Your task to perform on an android device: turn on priority inbox in the gmail app Image 0: 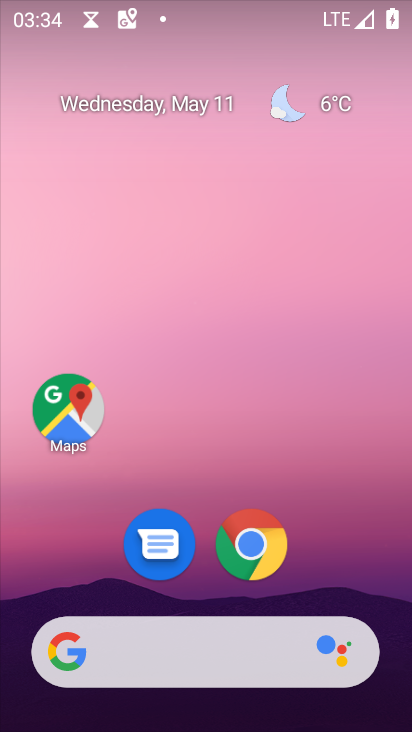
Step 0: drag from (322, 575) to (238, 76)
Your task to perform on an android device: turn on priority inbox in the gmail app Image 1: 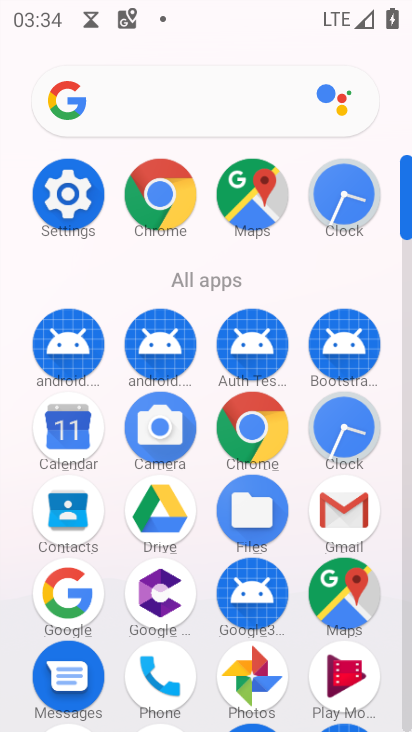
Step 1: click (344, 501)
Your task to perform on an android device: turn on priority inbox in the gmail app Image 2: 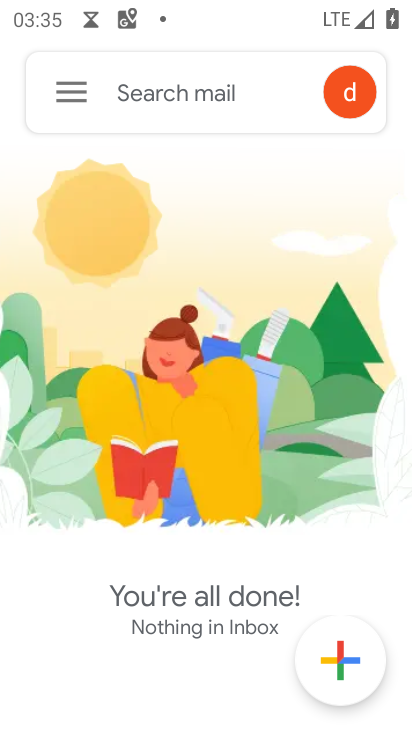
Step 2: click (72, 88)
Your task to perform on an android device: turn on priority inbox in the gmail app Image 3: 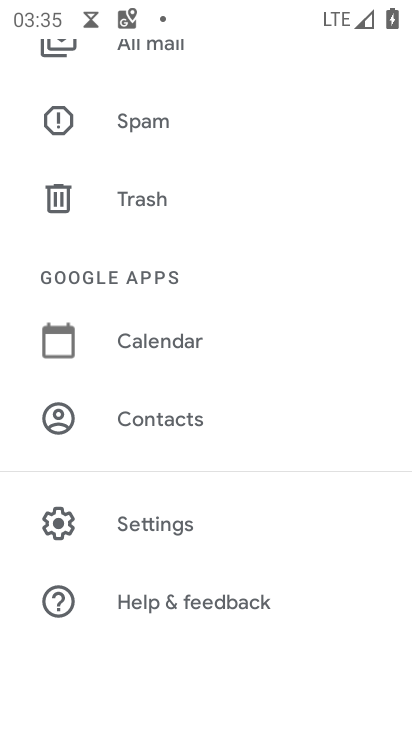
Step 3: click (177, 535)
Your task to perform on an android device: turn on priority inbox in the gmail app Image 4: 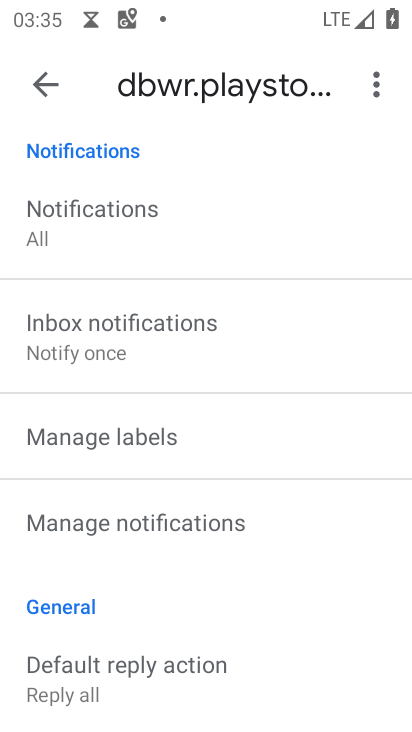
Step 4: drag from (161, 230) to (204, 468)
Your task to perform on an android device: turn on priority inbox in the gmail app Image 5: 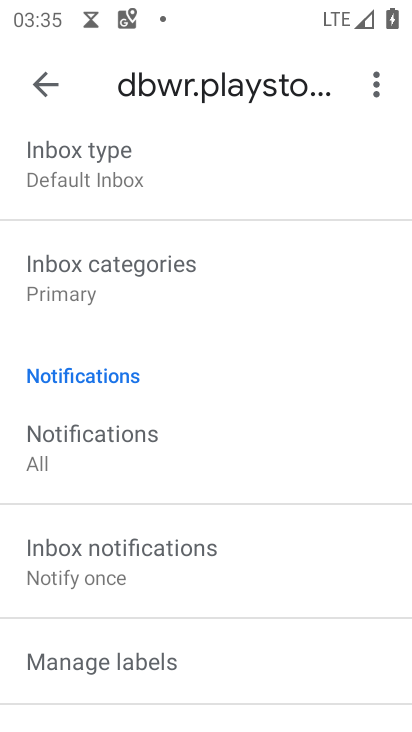
Step 5: drag from (175, 287) to (168, 529)
Your task to perform on an android device: turn on priority inbox in the gmail app Image 6: 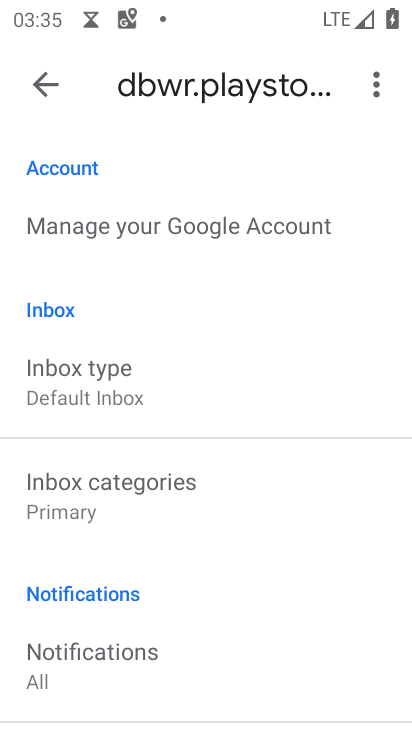
Step 6: click (137, 427)
Your task to perform on an android device: turn on priority inbox in the gmail app Image 7: 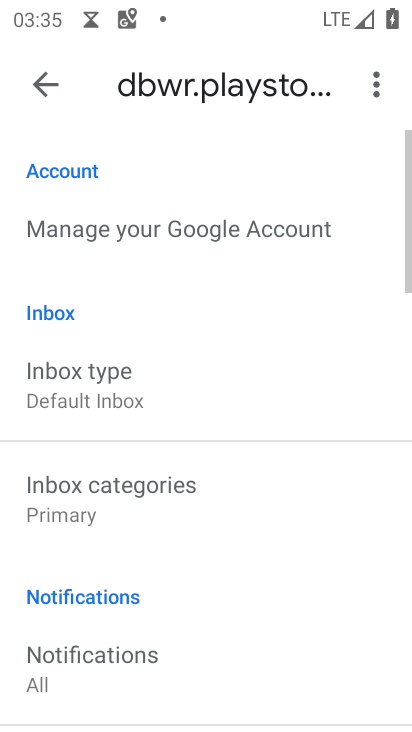
Step 7: click (98, 391)
Your task to perform on an android device: turn on priority inbox in the gmail app Image 8: 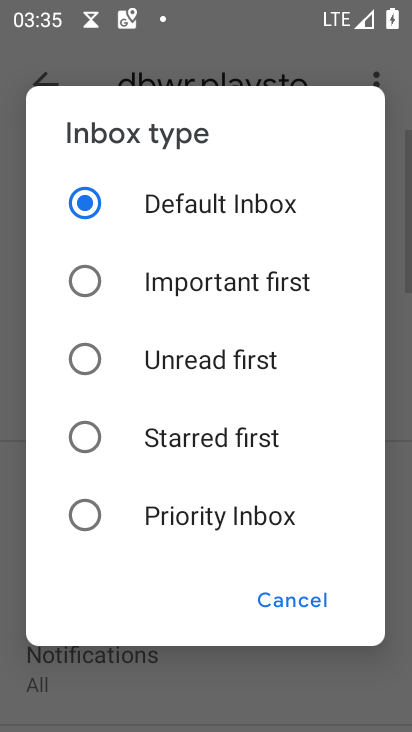
Step 8: click (165, 514)
Your task to perform on an android device: turn on priority inbox in the gmail app Image 9: 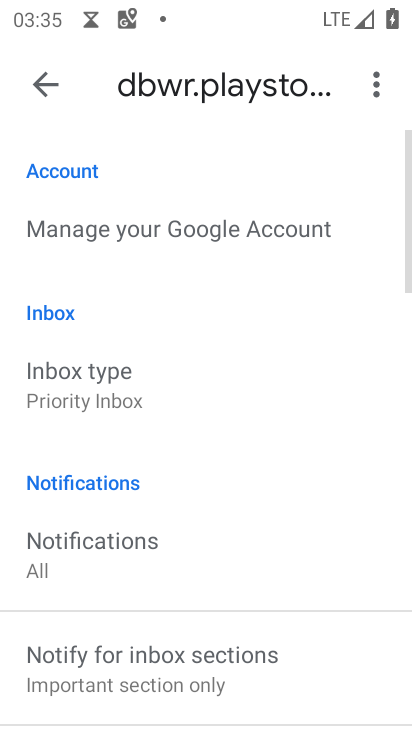
Step 9: task complete